Your task to perform on an android device: Go to ESPN.com Image 0: 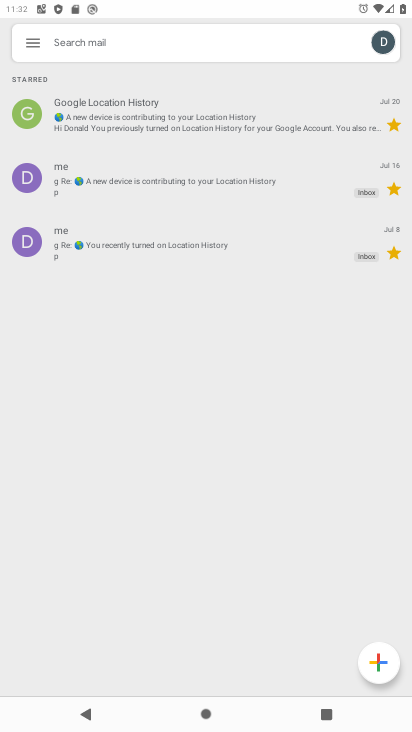
Step 0: press home button
Your task to perform on an android device: Go to ESPN.com Image 1: 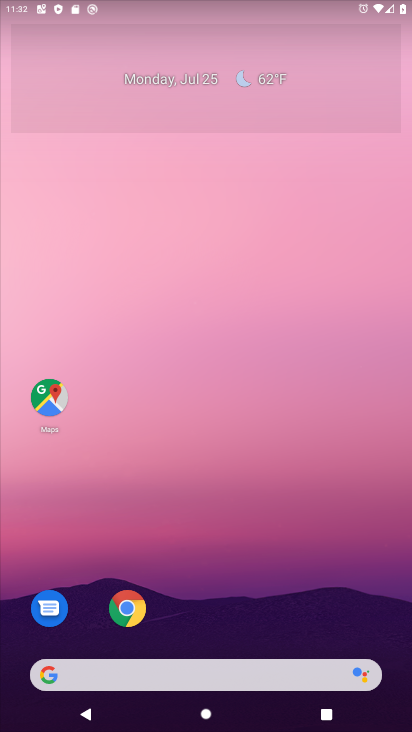
Step 1: click (122, 609)
Your task to perform on an android device: Go to ESPN.com Image 2: 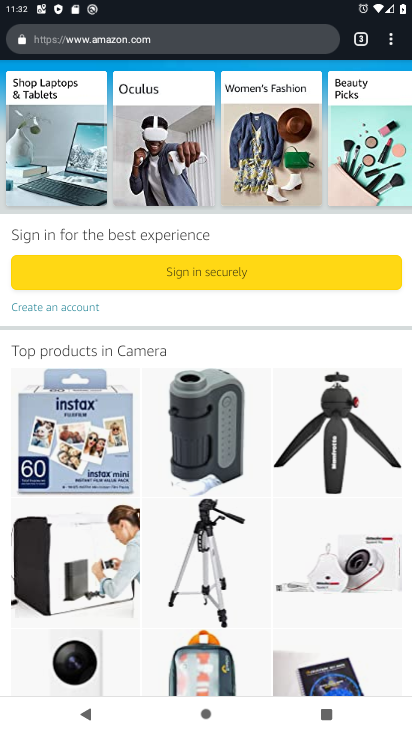
Step 2: click (147, 37)
Your task to perform on an android device: Go to ESPN.com Image 3: 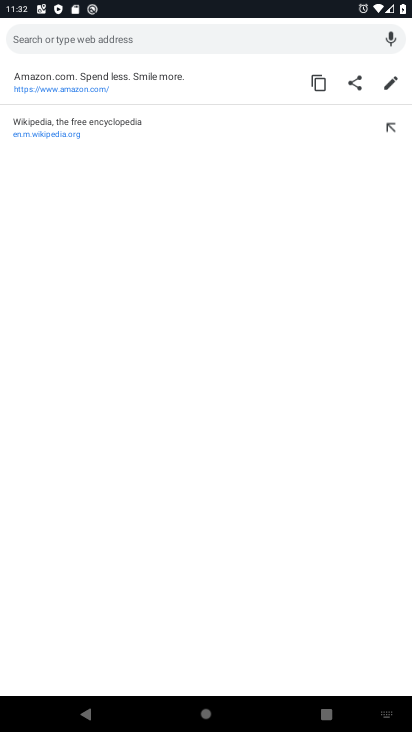
Step 3: type "ESPN.com"
Your task to perform on an android device: Go to ESPN.com Image 4: 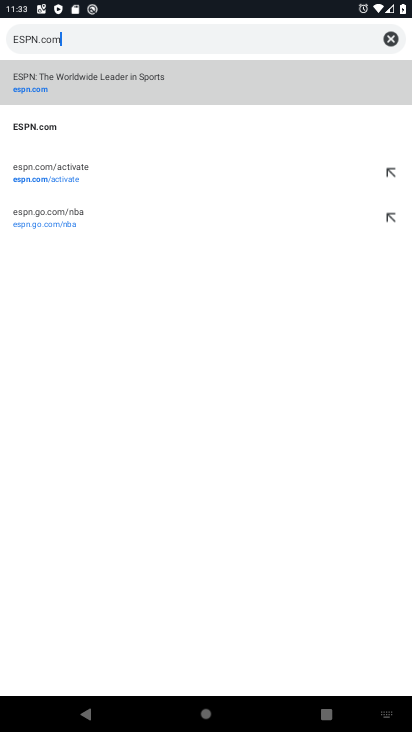
Step 4: click (139, 91)
Your task to perform on an android device: Go to ESPN.com Image 5: 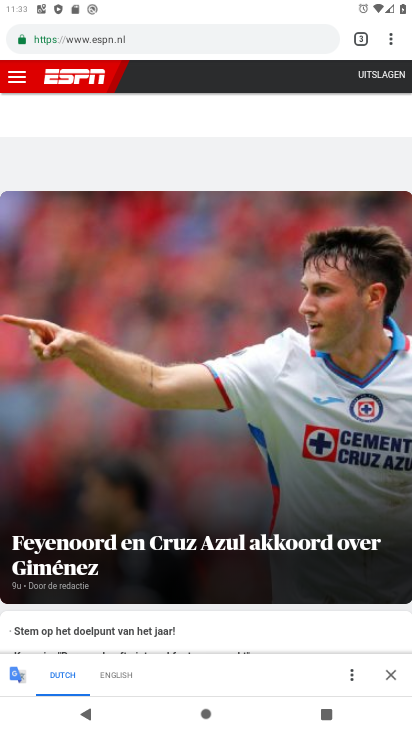
Step 5: task complete